Your task to perform on an android device: Empty the shopping cart on walmart.com. Add apple airpods to the cart on walmart.com, then select checkout. Image 0: 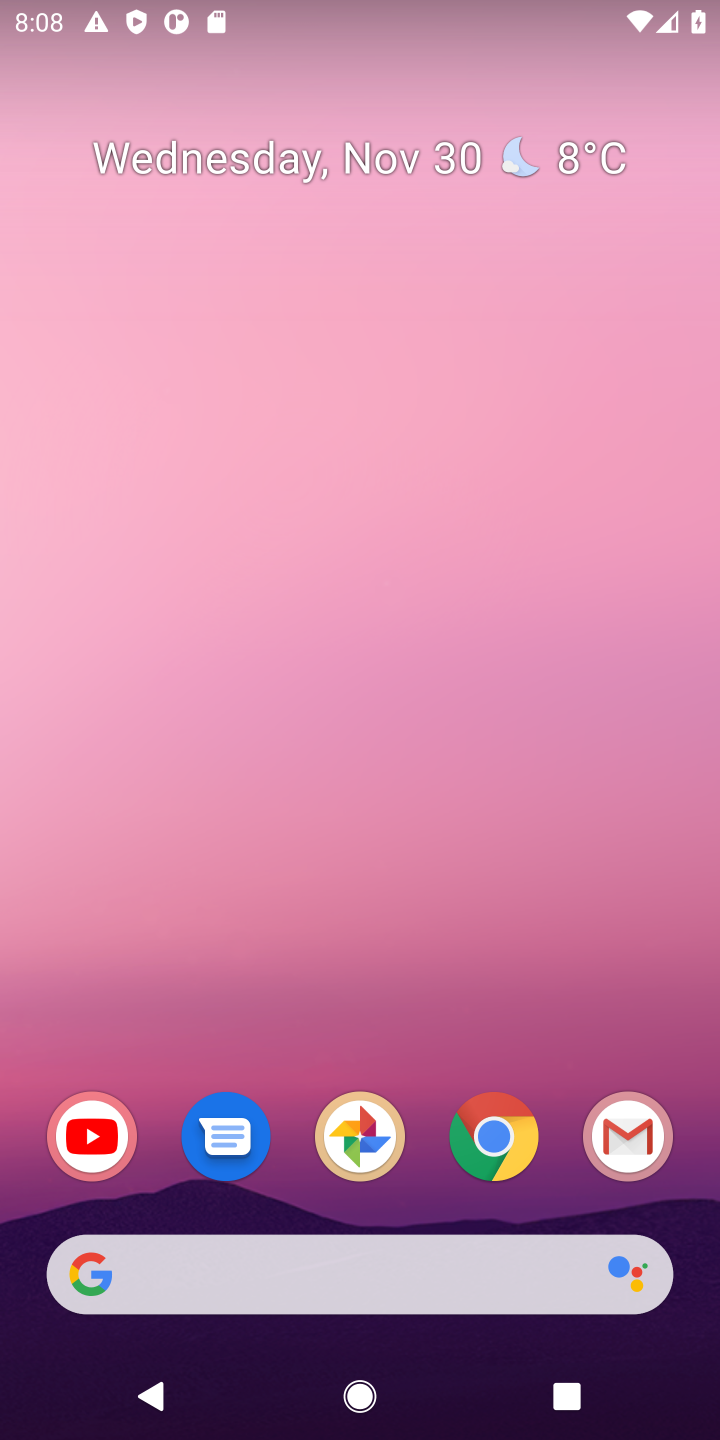
Step 0: click (491, 1149)
Your task to perform on an android device: Empty the shopping cart on walmart.com. Add apple airpods to the cart on walmart.com, then select checkout. Image 1: 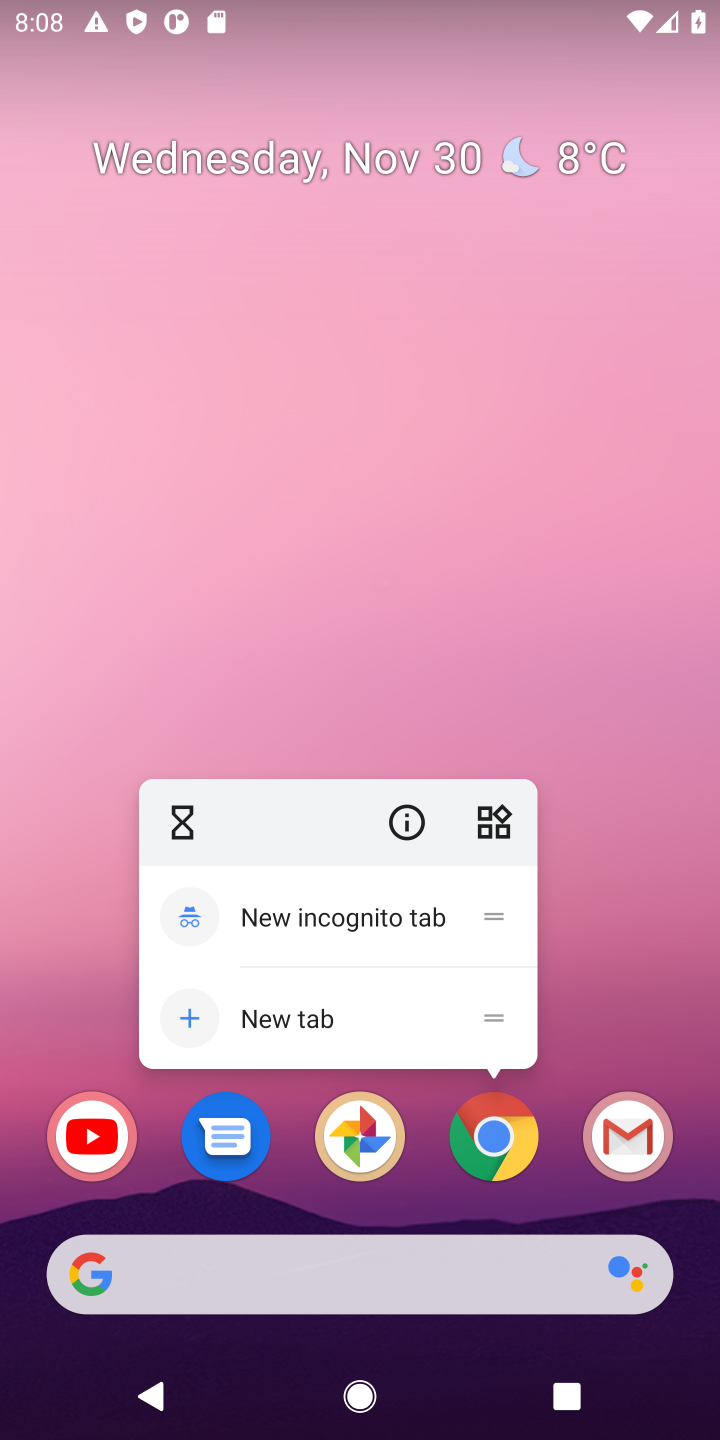
Step 1: click (495, 1149)
Your task to perform on an android device: Empty the shopping cart on walmart.com. Add apple airpods to the cart on walmart.com, then select checkout. Image 2: 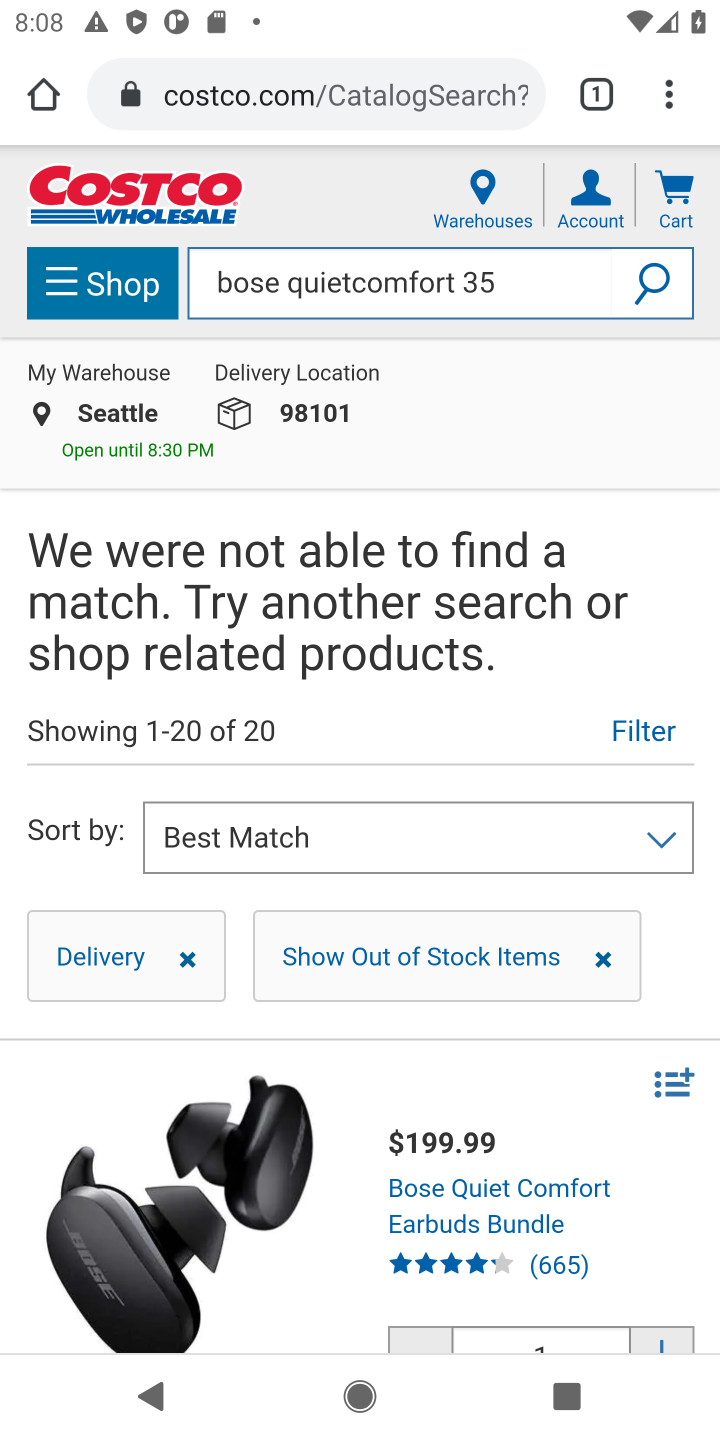
Step 2: click (295, 100)
Your task to perform on an android device: Empty the shopping cart on walmart.com. Add apple airpods to the cart on walmart.com, then select checkout. Image 3: 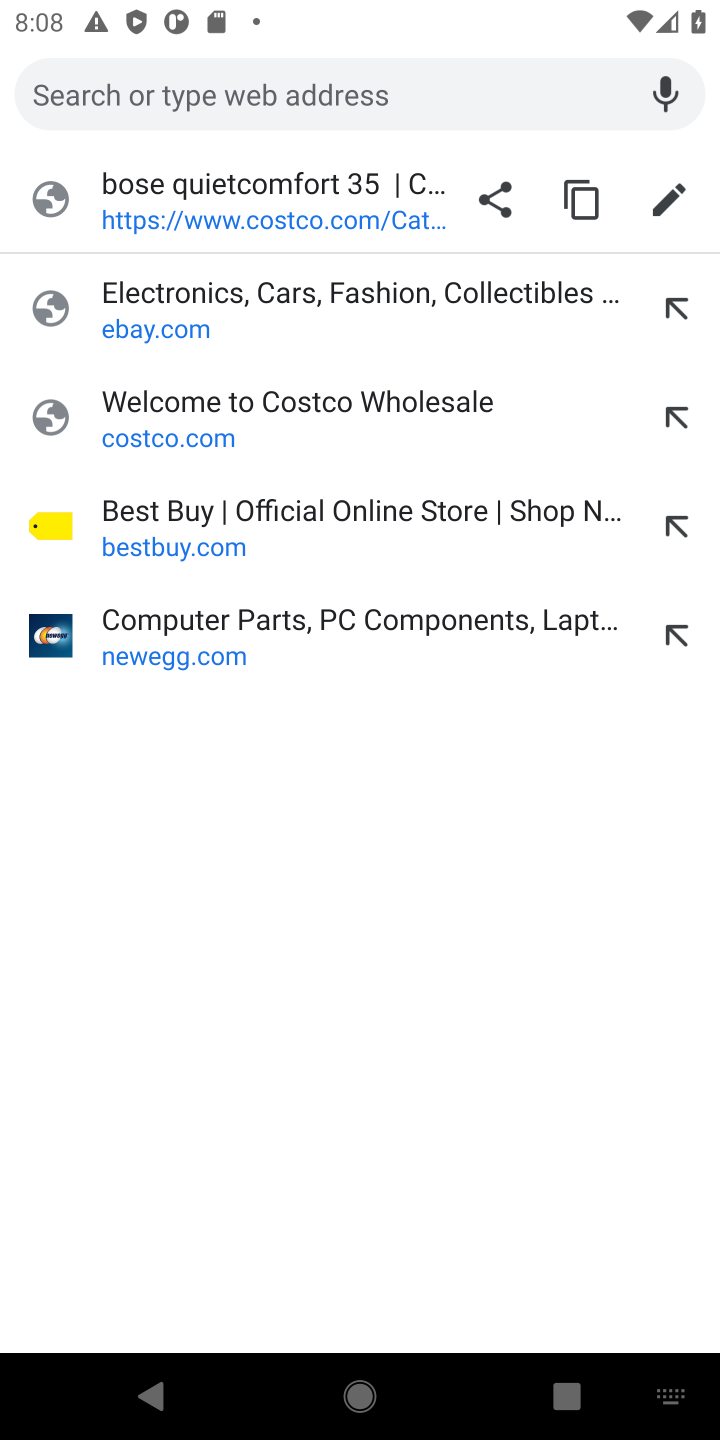
Step 3: type "walmart.com"
Your task to perform on an android device: Empty the shopping cart on walmart.com. Add apple airpods to the cart on walmart.com, then select checkout. Image 4: 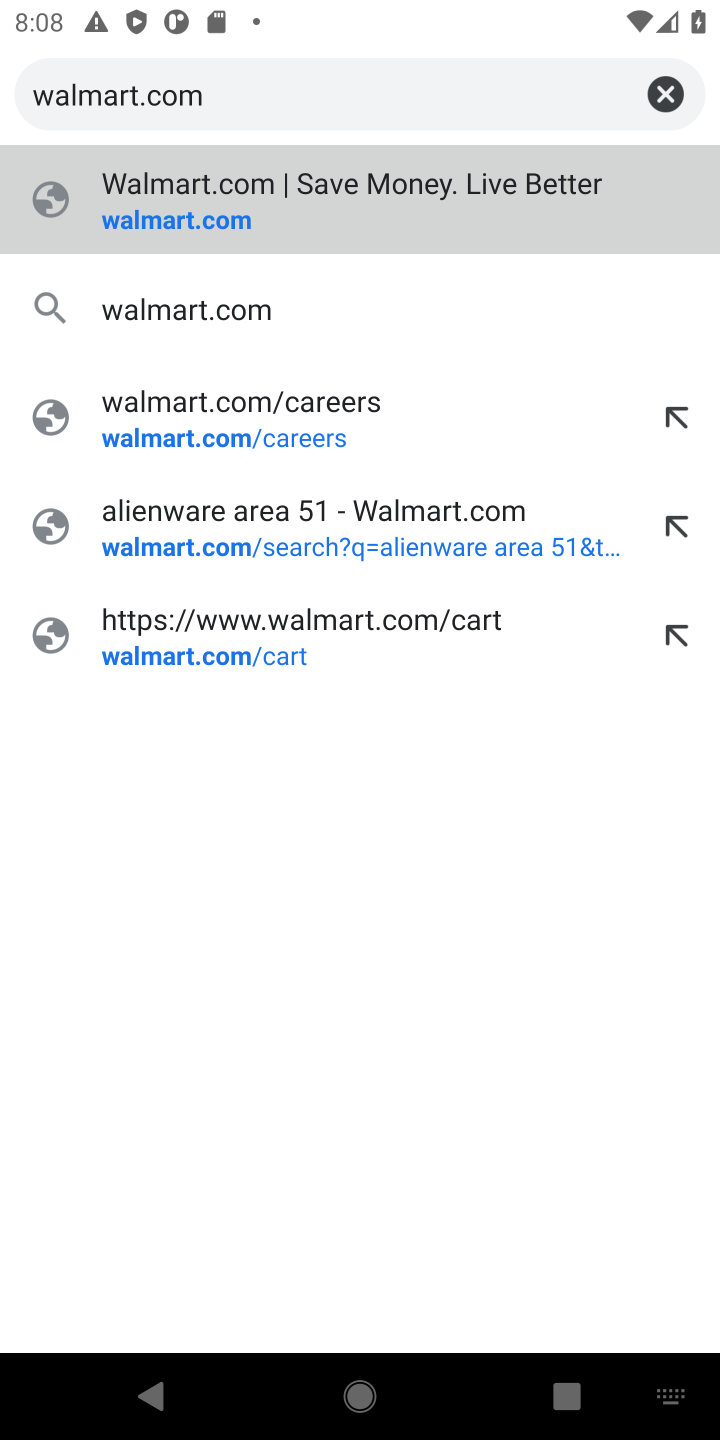
Step 4: click (174, 207)
Your task to perform on an android device: Empty the shopping cart on walmart.com. Add apple airpods to the cart on walmart.com, then select checkout. Image 5: 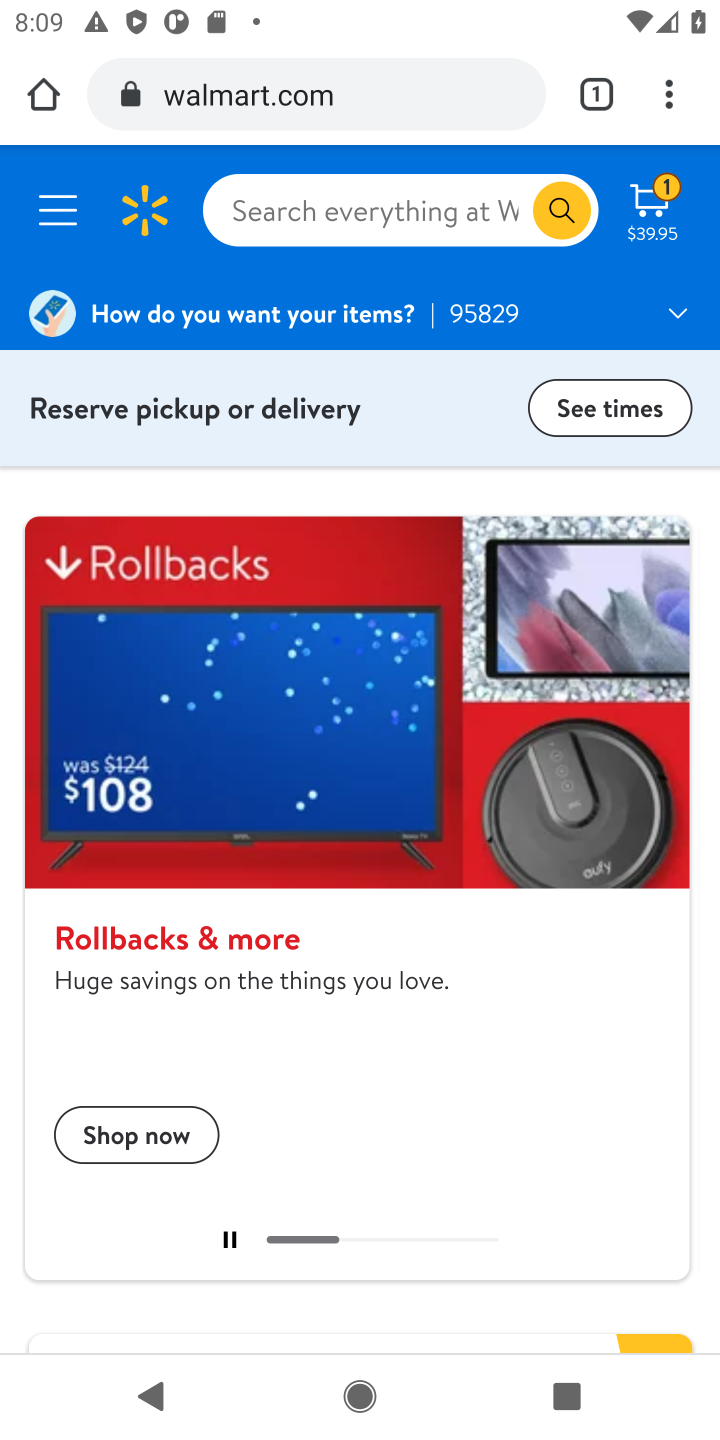
Step 5: click (661, 218)
Your task to perform on an android device: Empty the shopping cart on walmart.com. Add apple airpods to the cart on walmart.com, then select checkout. Image 6: 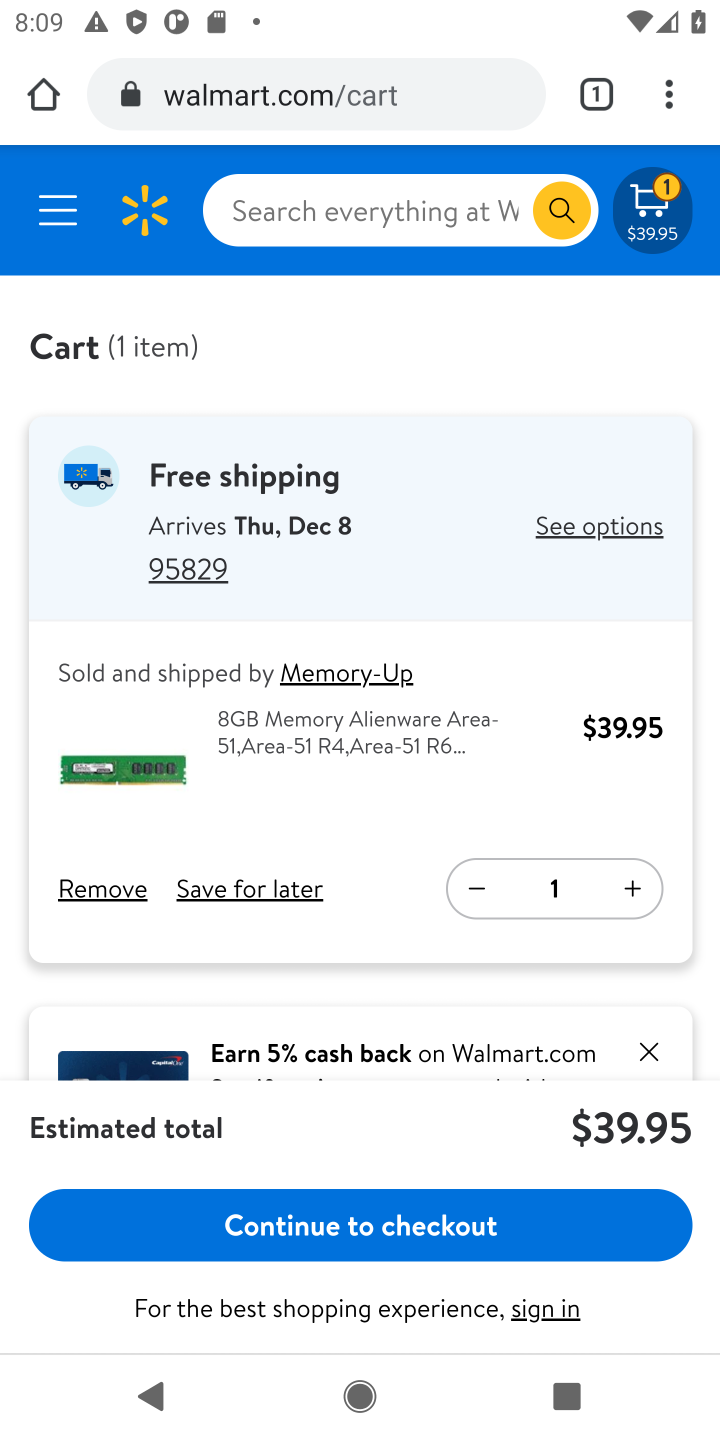
Step 6: click (114, 892)
Your task to perform on an android device: Empty the shopping cart on walmart.com. Add apple airpods to the cart on walmart.com, then select checkout. Image 7: 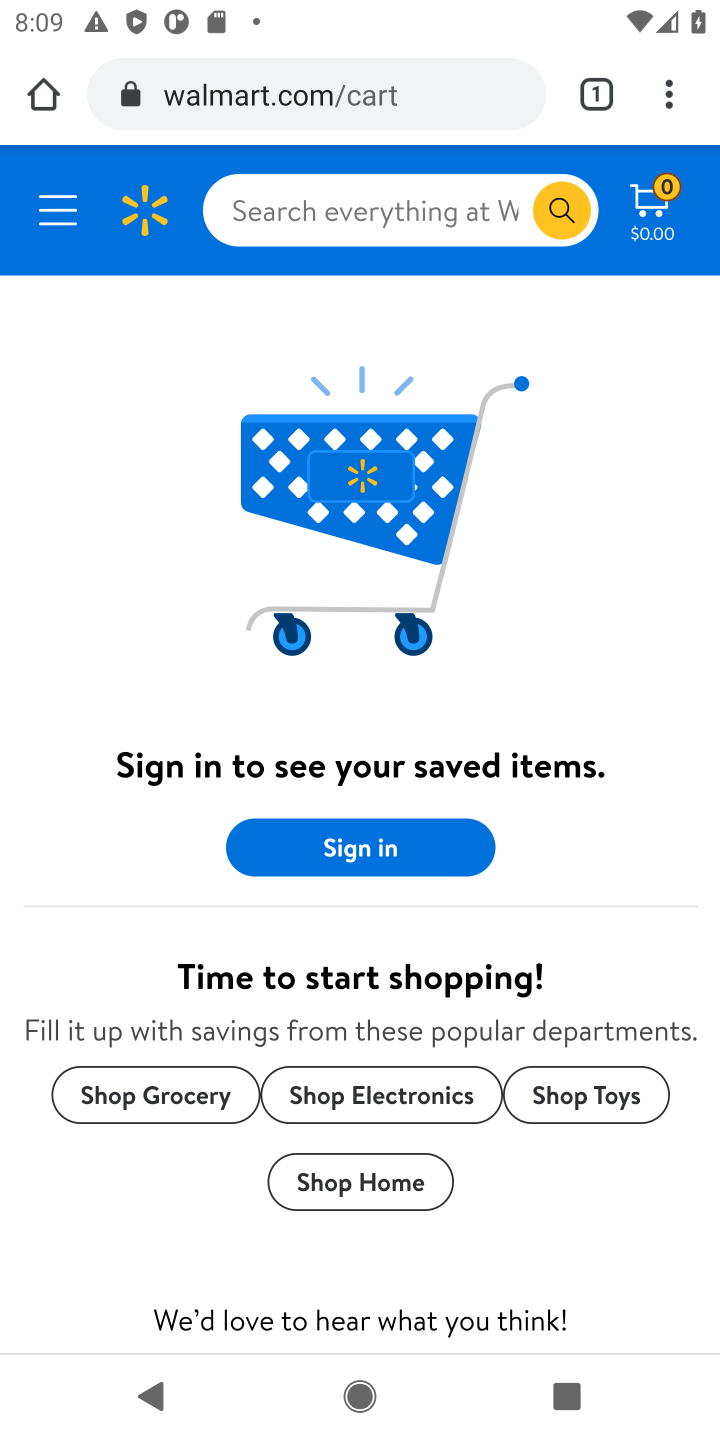
Step 7: click (284, 215)
Your task to perform on an android device: Empty the shopping cart on walmart.com. Add apple airpods to the cart on walmart.com, then select checkout. Image 8: 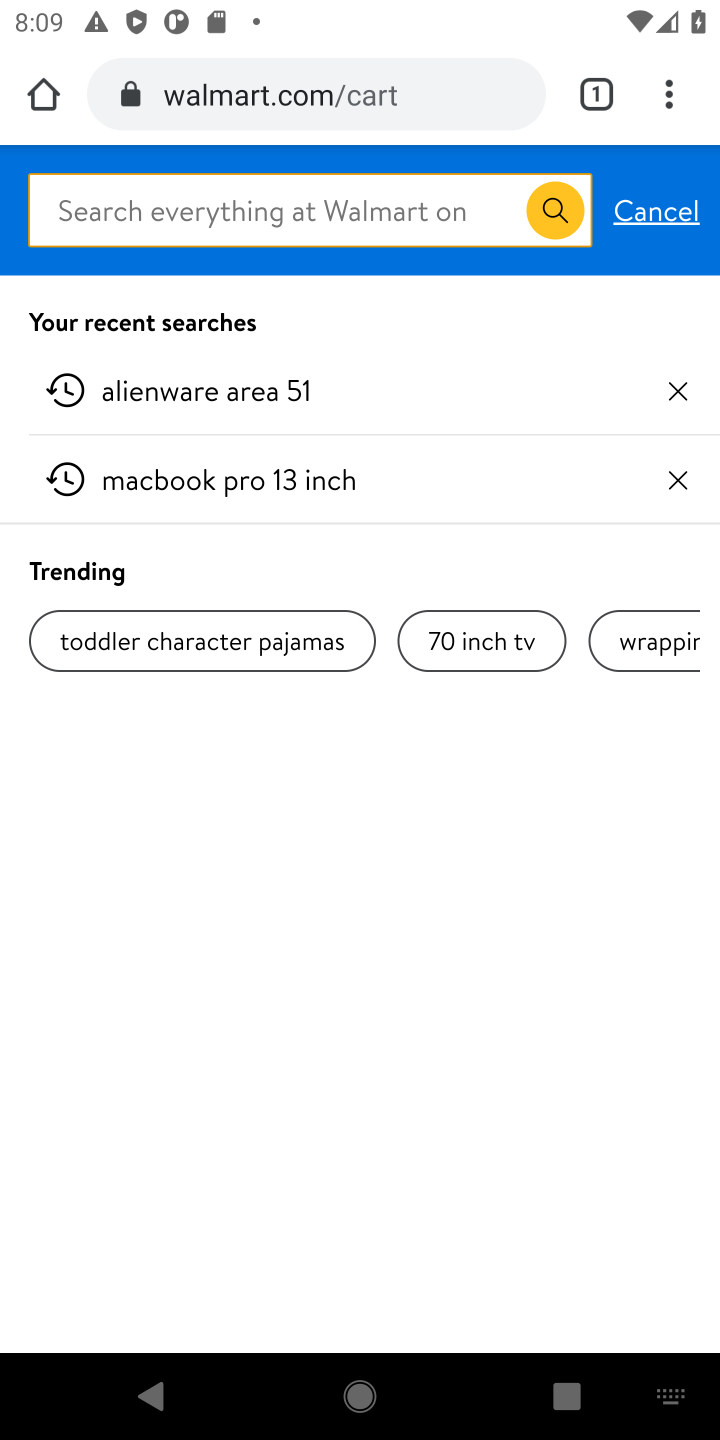
Step 8: type "apple airpods"
Your task to perform on an android device: Empty the shopping cart on walmart.com. Add apple airpods to the cart on walmart.com, then select checkout. Image 9: 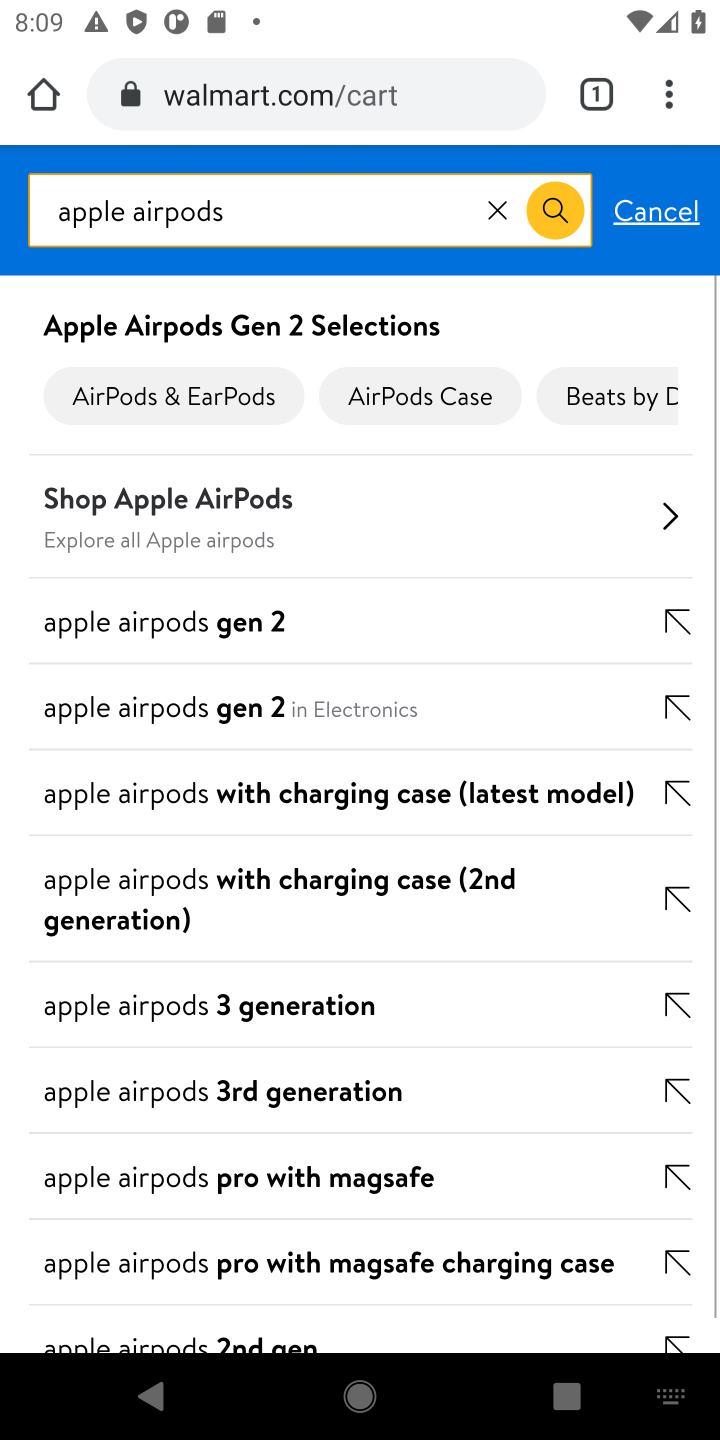
Step 9: click (562, 204)
Your task to perform on an android device: Empty the shopping cart on walmart.com. Add apple airpods to the cart on walmart.com, then select checkout. Image 10: 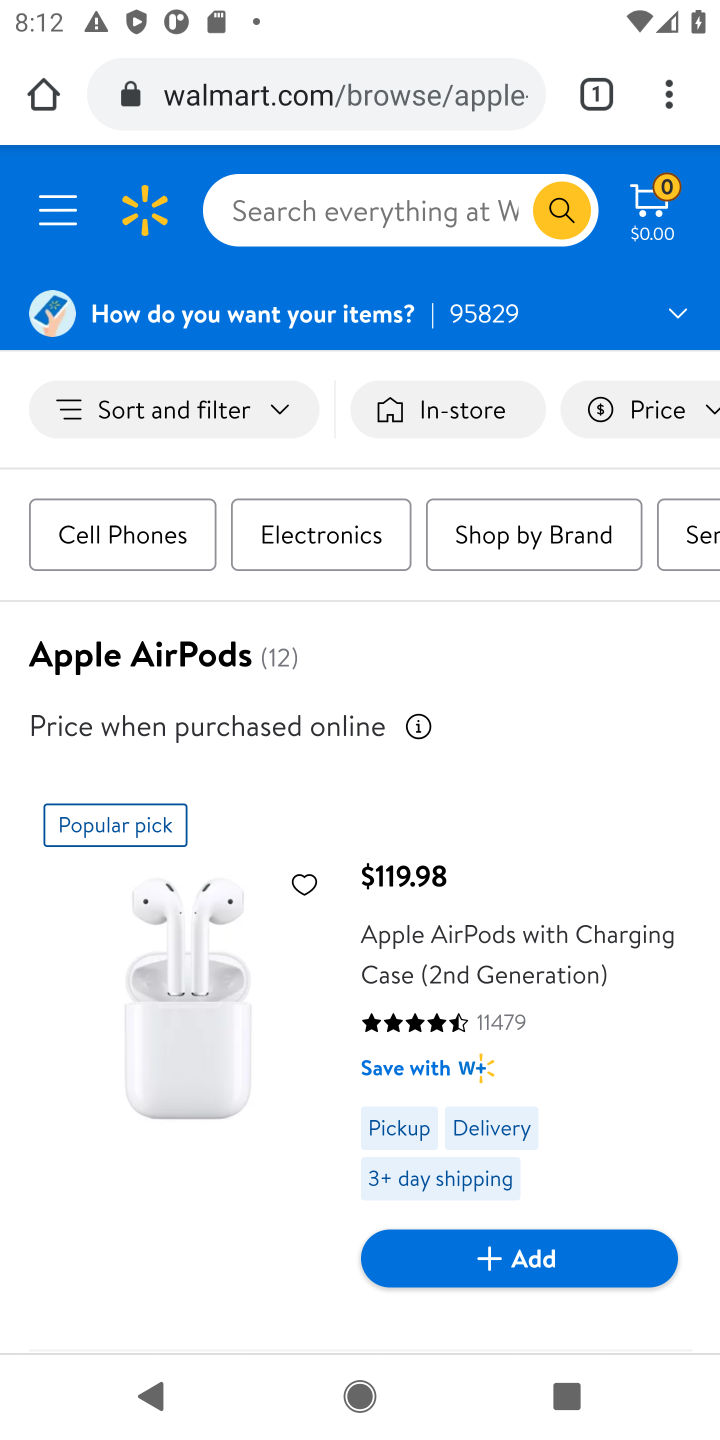
Step 10: click (298, 217)
Your task to perform on an android device: Empty the shopping cart on walmart.com. Add apple airpods to the cart on walmart.com, then select checkout. Image 11: 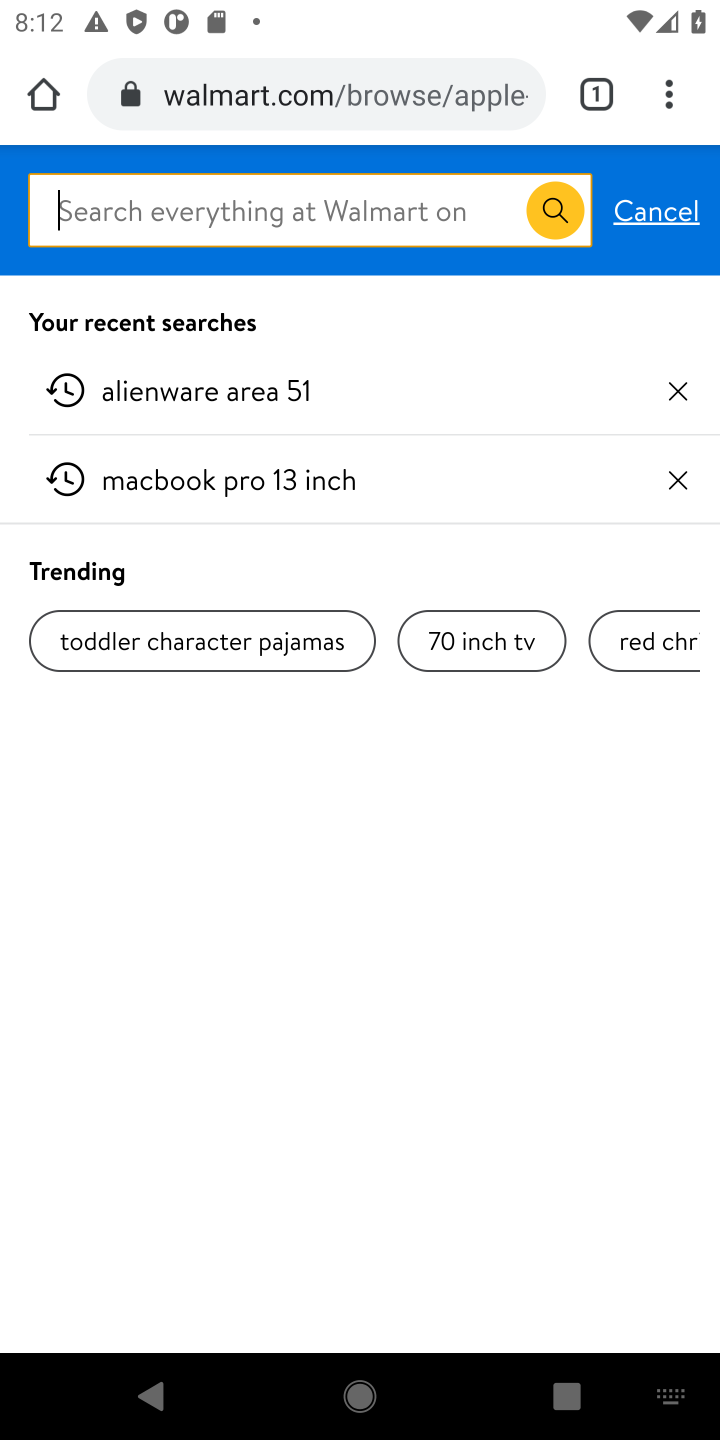
Step 11: type "apple airpods"
Your task to perform on an android device: Empty the shopping cart on walmart.com. Add apple airpods to the cart on walmart.com, then select checkout. Image 12: 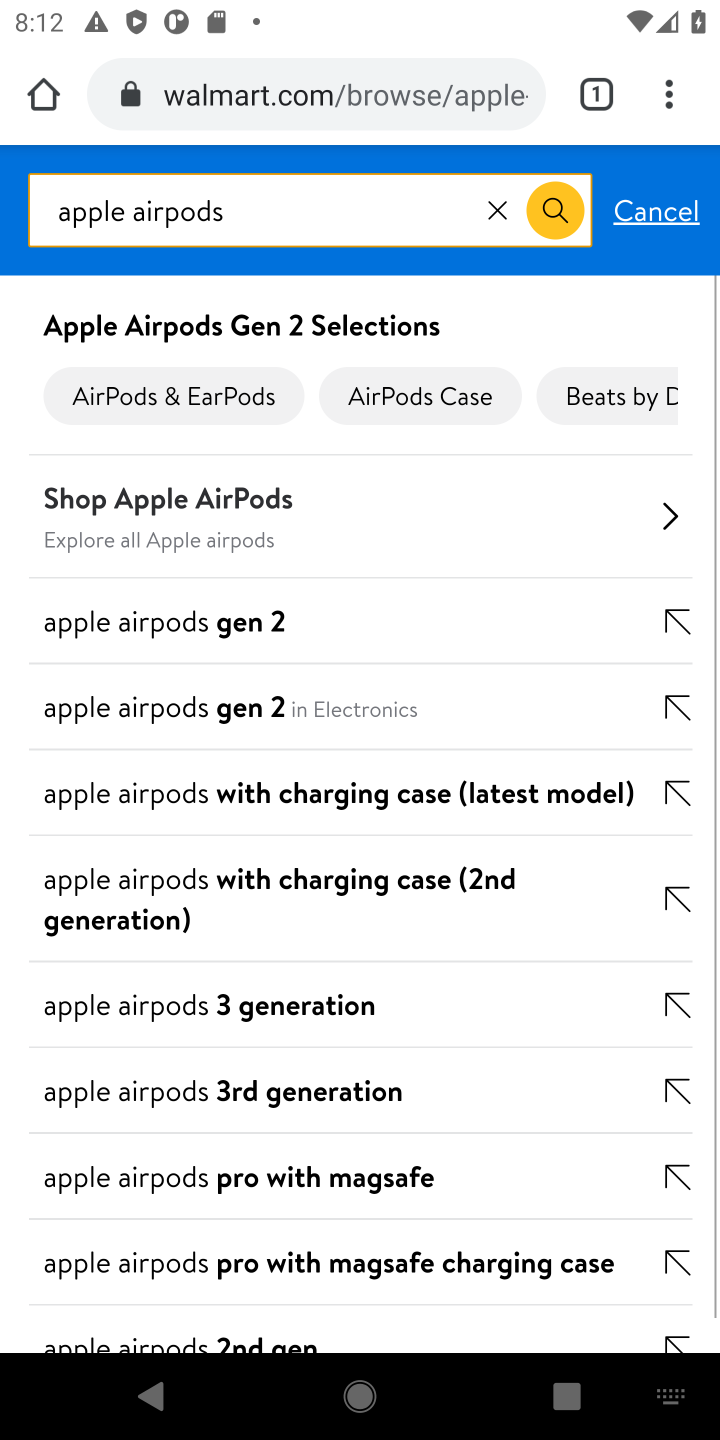
Step 12: click (553, 221)
Your task to perform on an android device: Empty the shopping cart on walmart.com. Add apple airpods to the cart on walmart.com, then select checkout. Image 13: 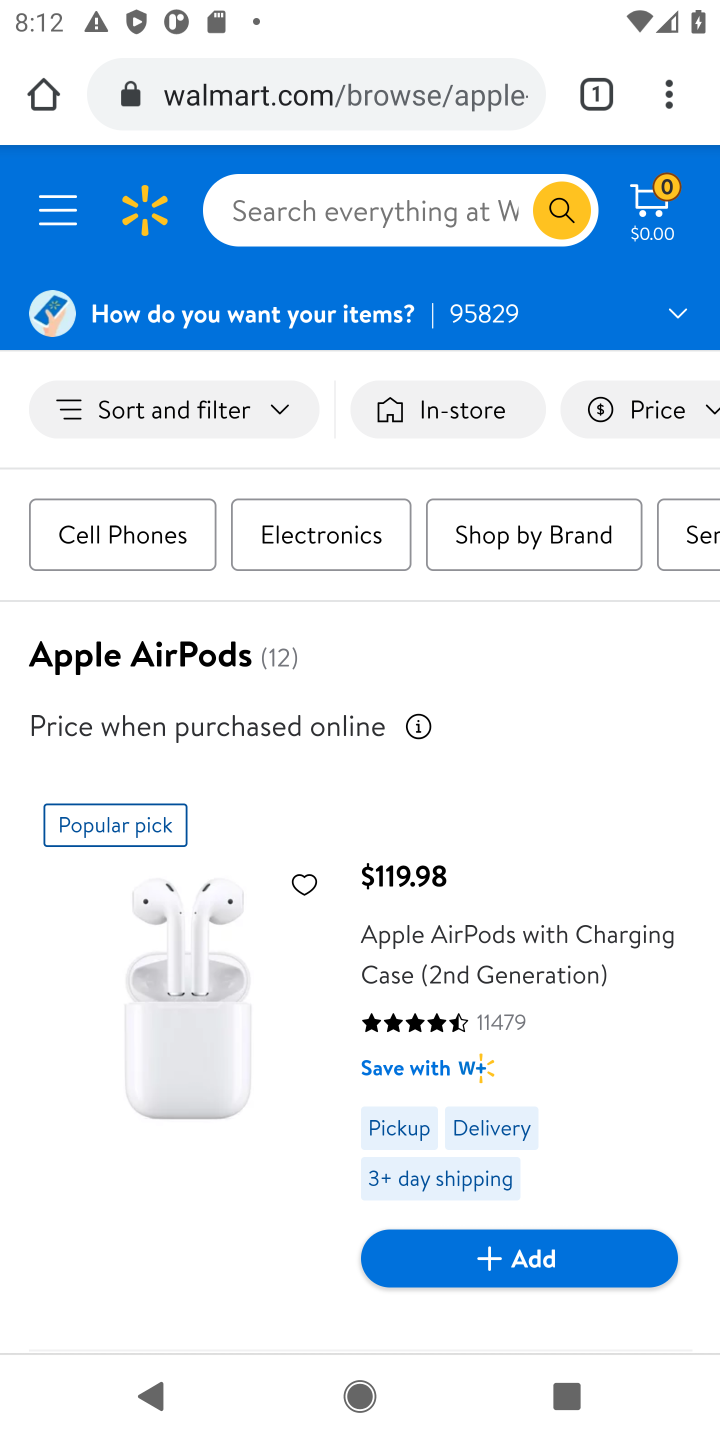
Step 13: click (497, 1263)
Your task to perform on an android device: Empty the shopping cart on walmart.com. Add apple airpods to the cart on walmart.com, then select checkout. Image 14: 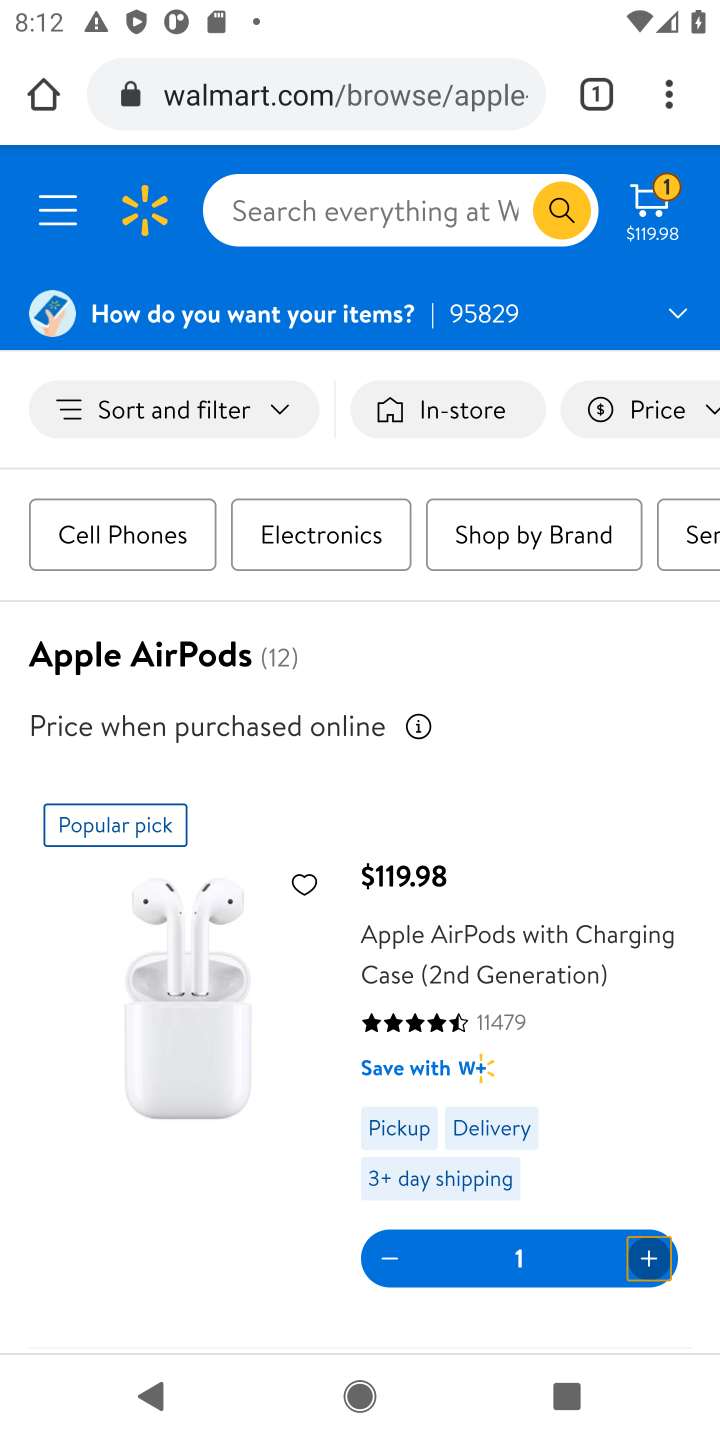
Step 14: click (663, 228)
Your task to perform on an android device: Empty the shopping cart on walmart.com. Add apple airpods to the cart on walmart.com, then select checkout. Image 15: 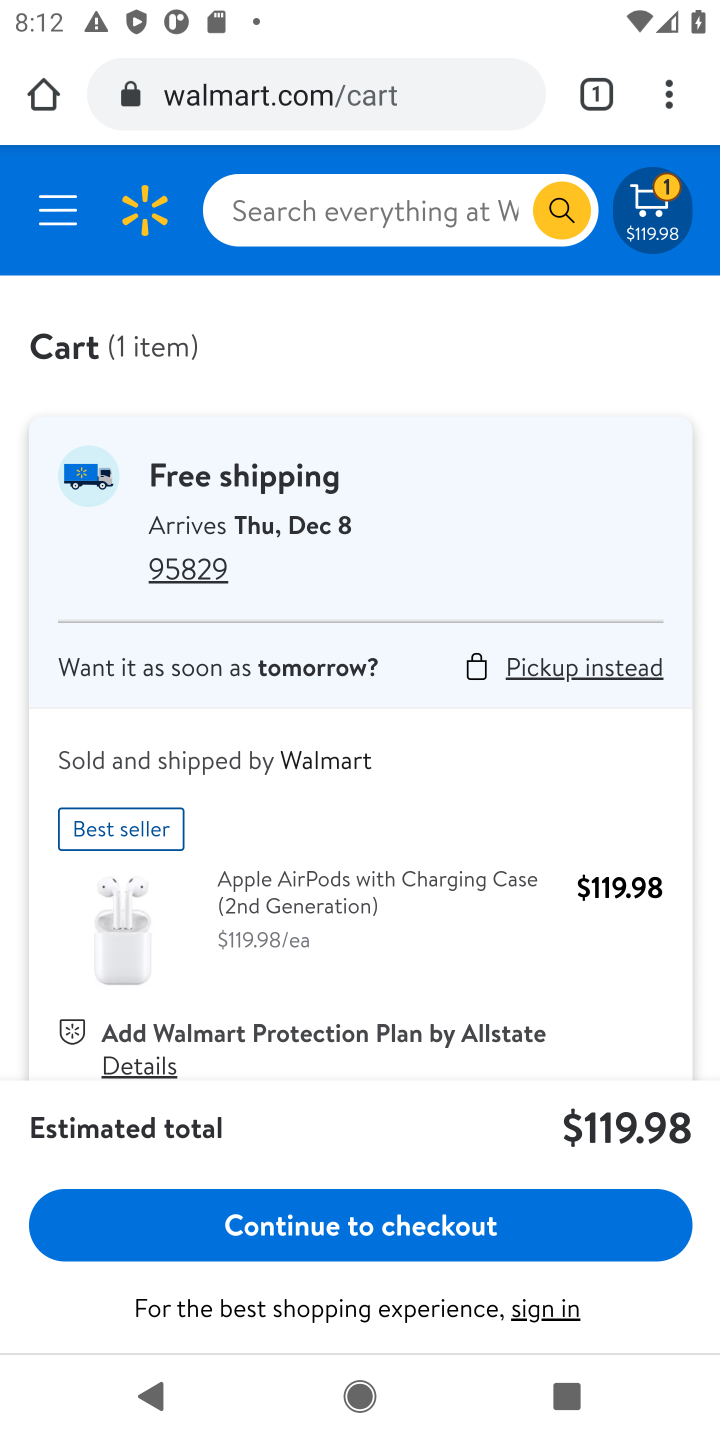
Step 15: click (329, 1222)
Your task to perform on an android device: Empty the shopping cart on walmart.com. Add apple airpods to the cart on walmart.com, then select checkout. Image 16: 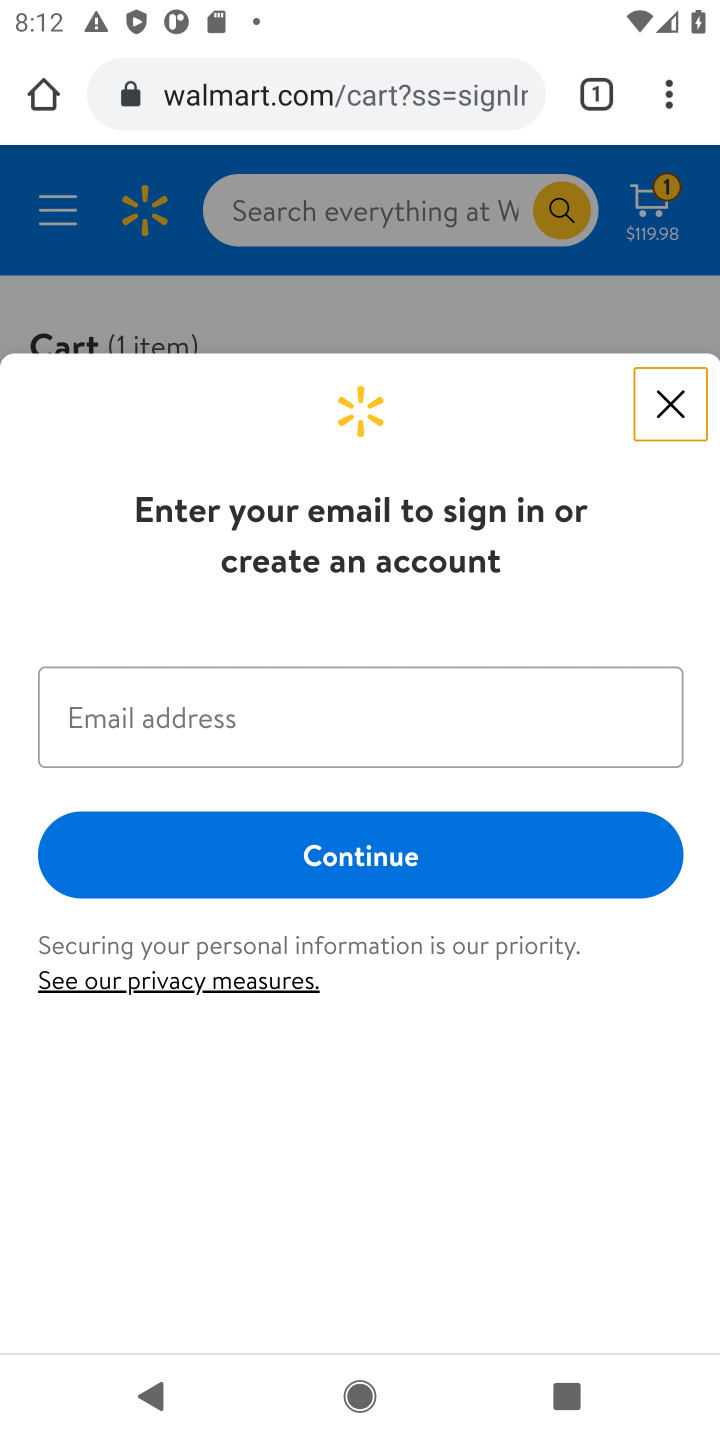
Step 16: task complete